Your task to perform on an android device: open device folders in google photos Image 0: 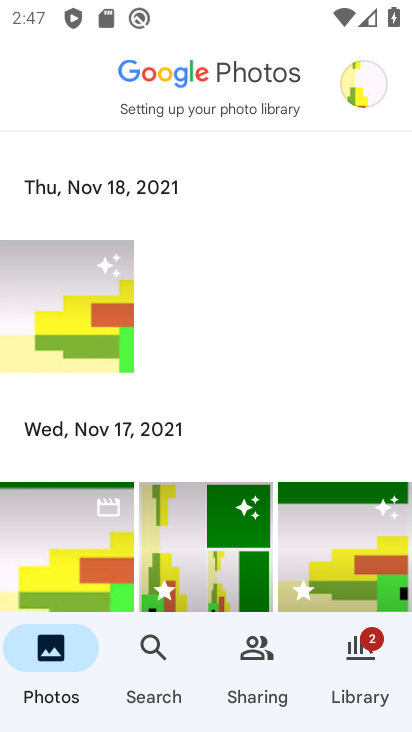
Step 0: click (363, 96)
Your task to perform on an android device: open device folders in google photos Image 1: 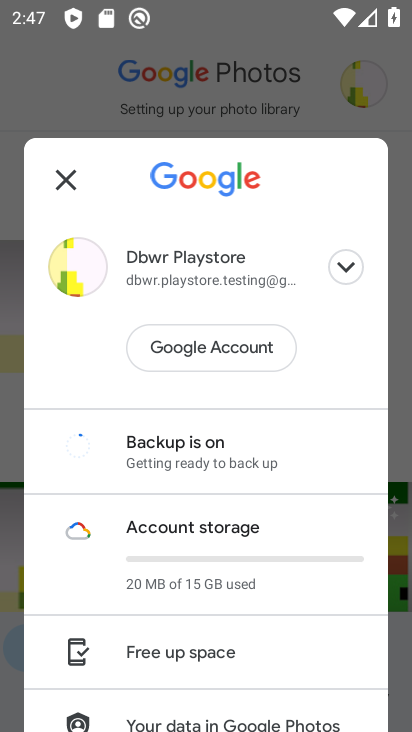
Step 1: task complete